Your task to perform on an android device: Open display settings Image 0: 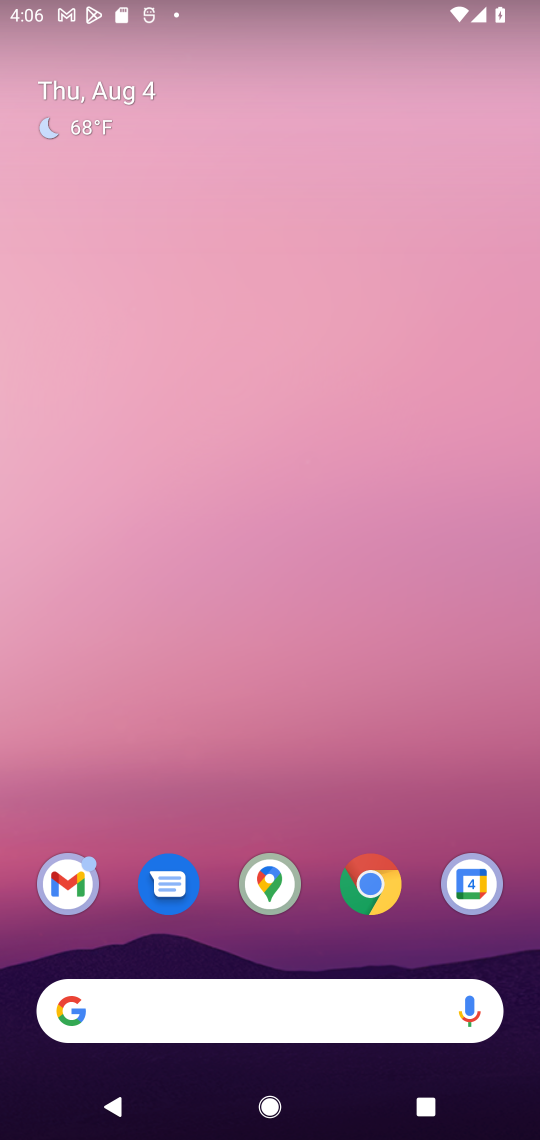
Step 0: drag from (318, 954) to (324, 6)
Your task to perform on an android device: Open display settings Image 1: 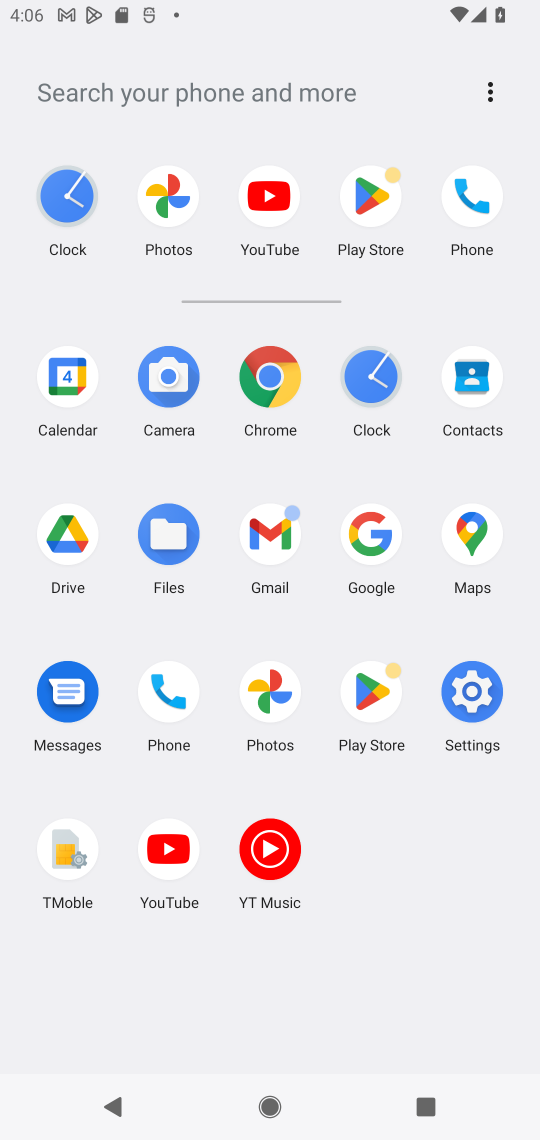
Step 1: click (454, 718)
Your task to perform on an android device: Open display settings Image 2: 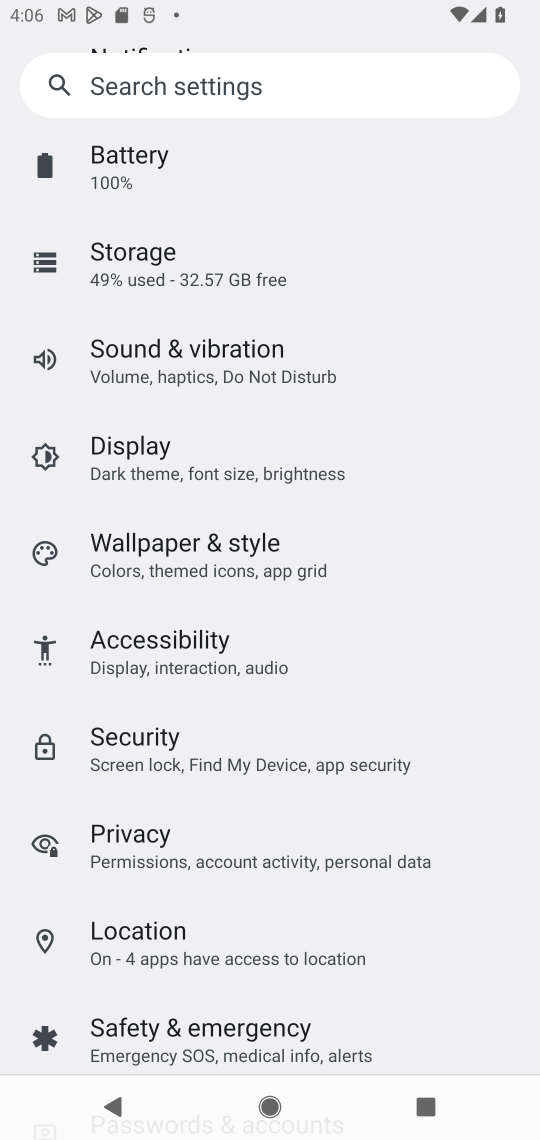
Step 2: click (206, 458)
Your task to perform on an android device: Open display settings Image 3: 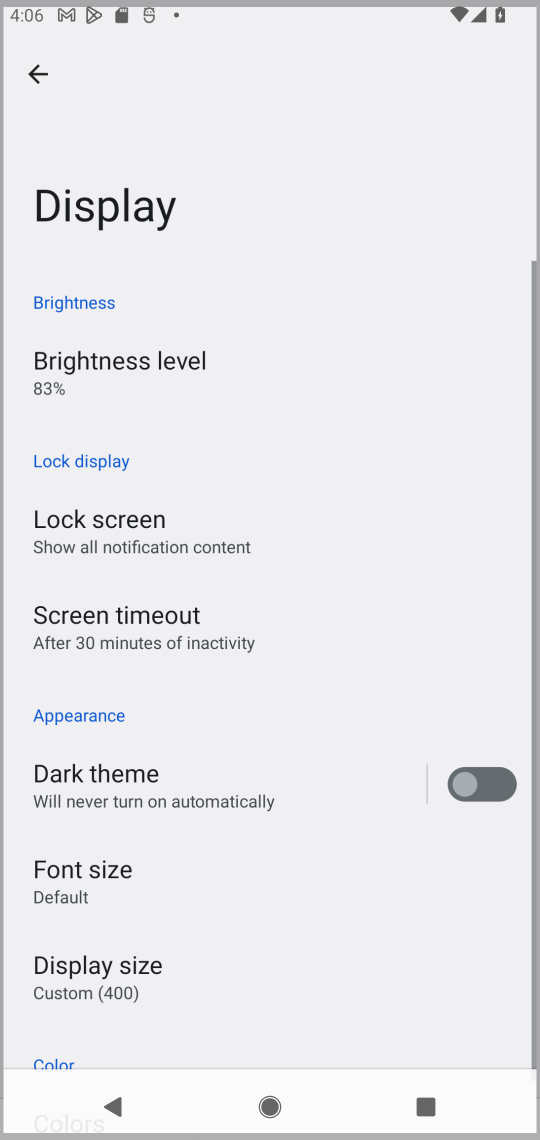
Step 3: task complete